Your task to perform on an android device: What's the weather? Image 0: 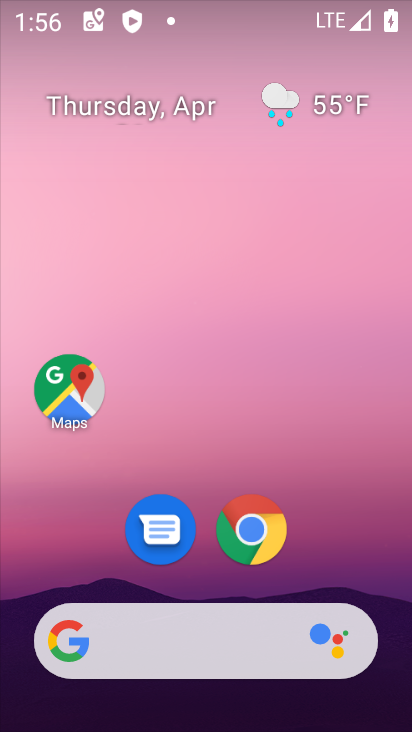
Step 0: click (256, 653)
Your task to perform on an android device: What's the weather? Image 1: 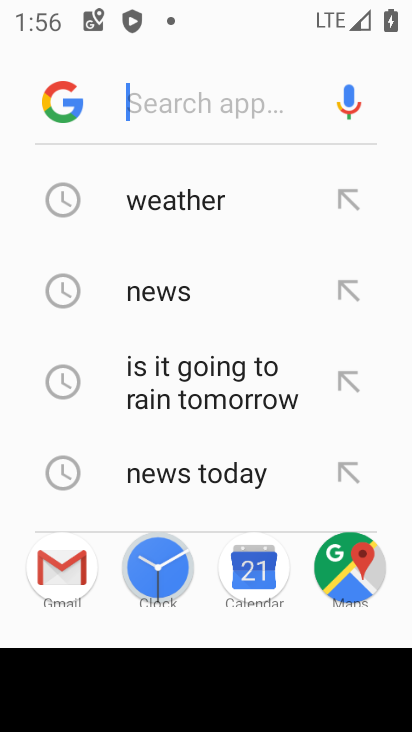
Step 1: click (197, 223)
Your task to perform on an android device: What's the weather? Image 2: 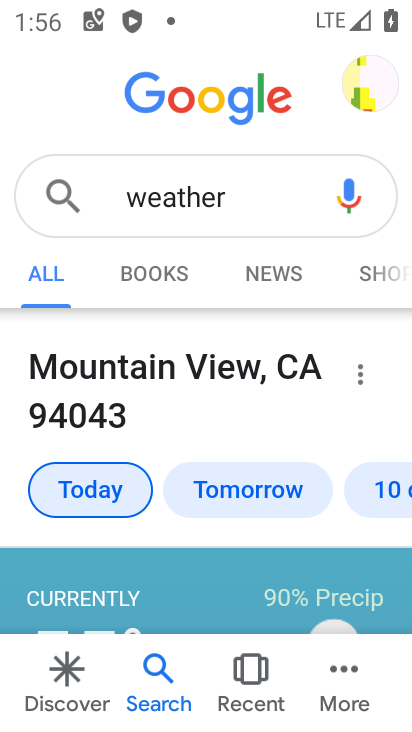
Step 2: task complete